Your task to perform on an android device: toggle sleep mode Image 0: 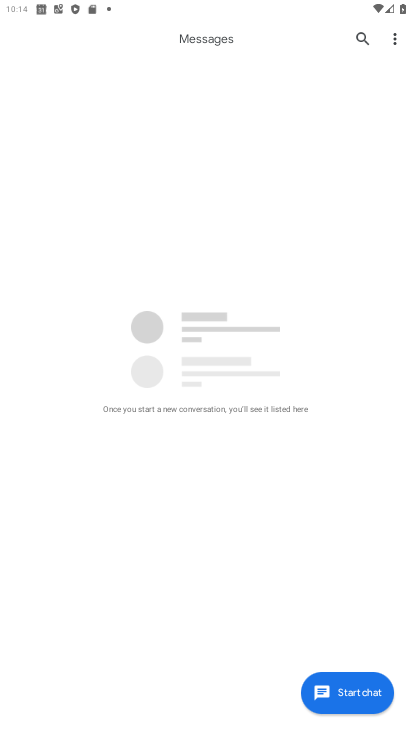
Step 0: press home button
Your task to perform on an android device: toggle sleep mode Image 1: 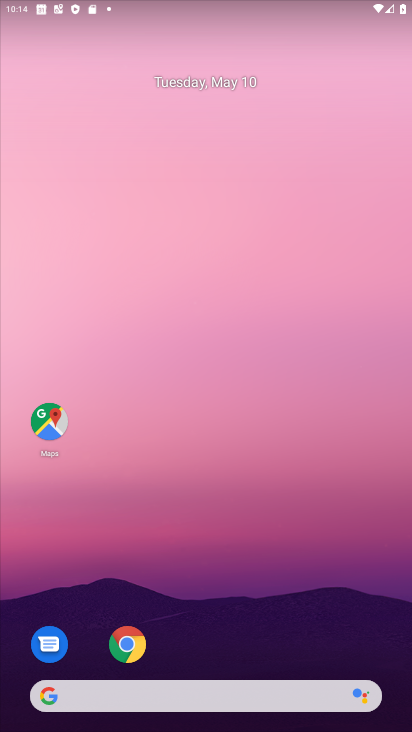
Step 1: drag from (203, 695) to (272, 140)
Your task to perform on an android device: toggle sleep mode Image 2: 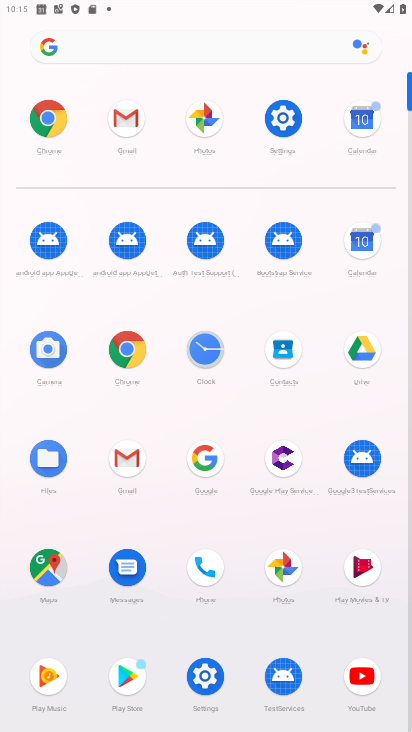
Step 2: click (282, 115)
Your task to perform on an android device: toggle sleep mode Image 3: 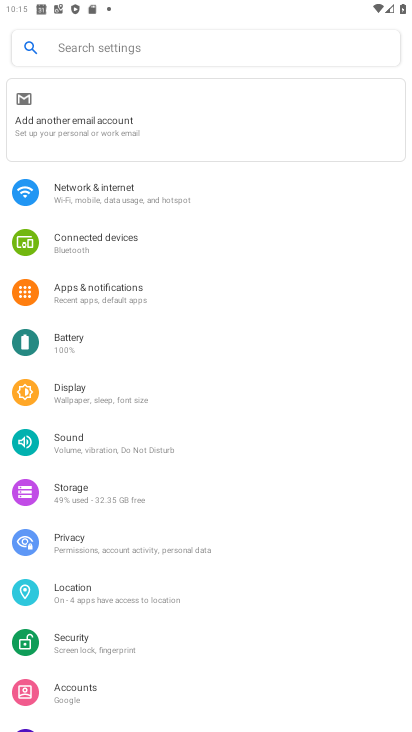
Step 3: click (185, 396)
Your task to perform on an android device: toggle sleep mode Image 4: 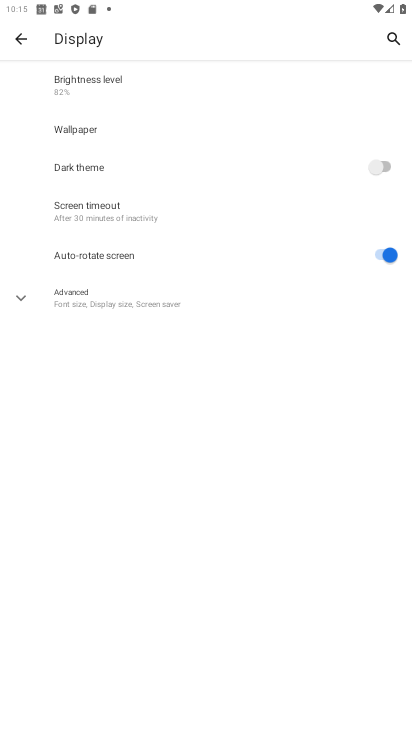
Step 4: click (148, 303)
Your task to perform on an android device: toggle sleep mode Image 5: 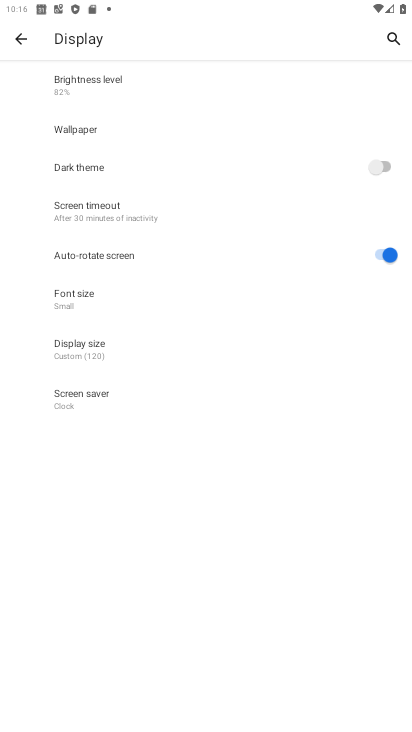
Step 5: task complete